Your task to perform on an android device: Turn off the flashlight Image 0: 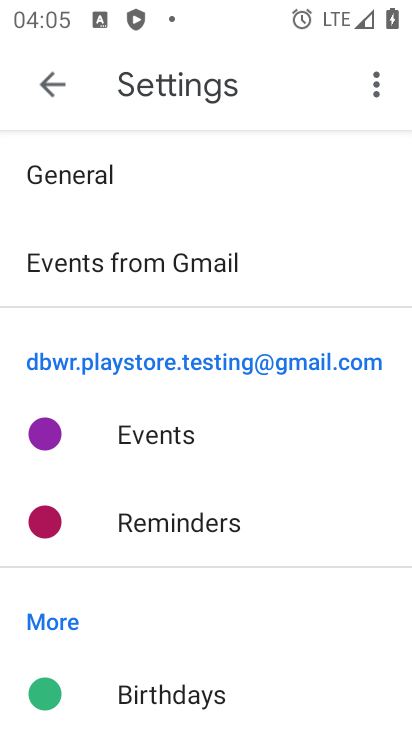
Step 0: press home button
Your task to perform on an android device: Turn off the flashlight Image 1: 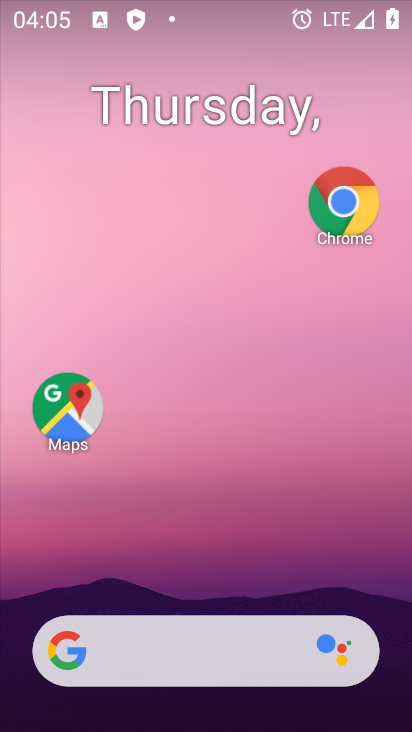
Step 1: task complete